Your task to perform on an android device: create a new album in the google photos Image 0: 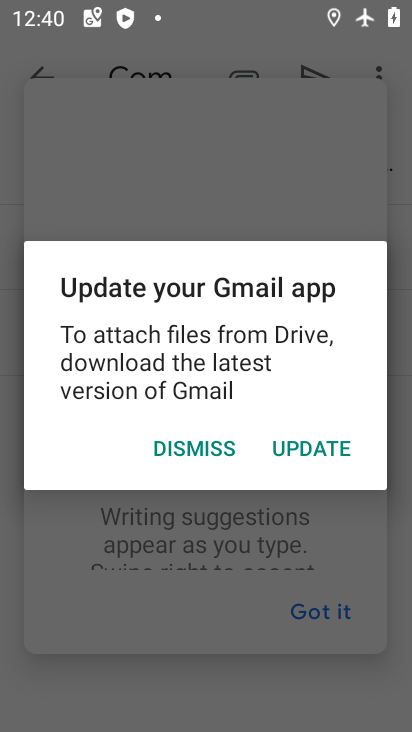
Step 0: press home button
Your task to perform on an android device: create a new album in the google photos Image 1: 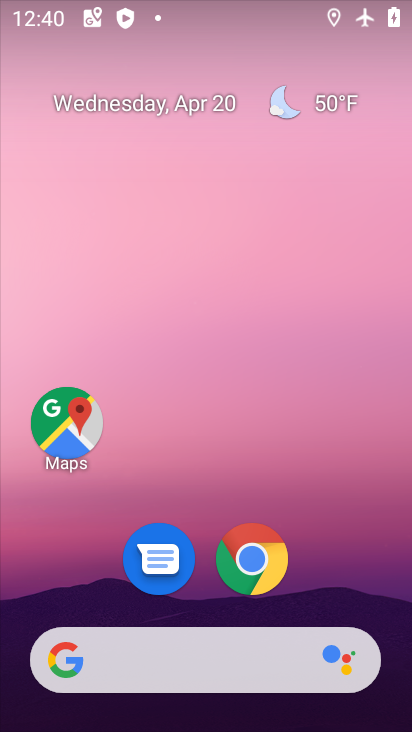
Step 1: drag from (322, 501) to (324, 127)
Your task to perform on an android device: create a new album in the google photos Image 2: 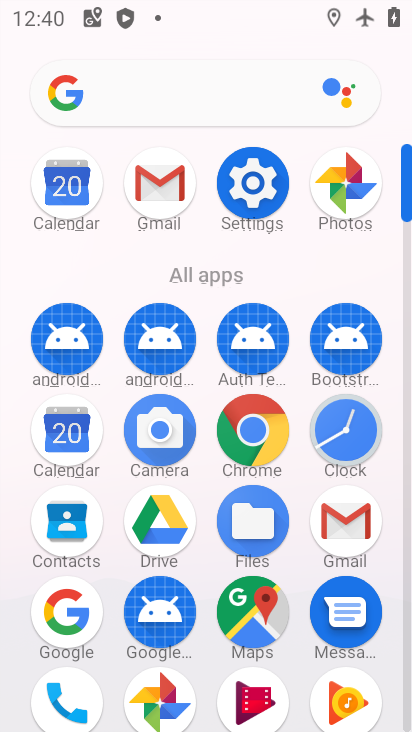
Step 2: click (346, 180)
Your task to perform on an android device: create a new album in the google photos Image 3: 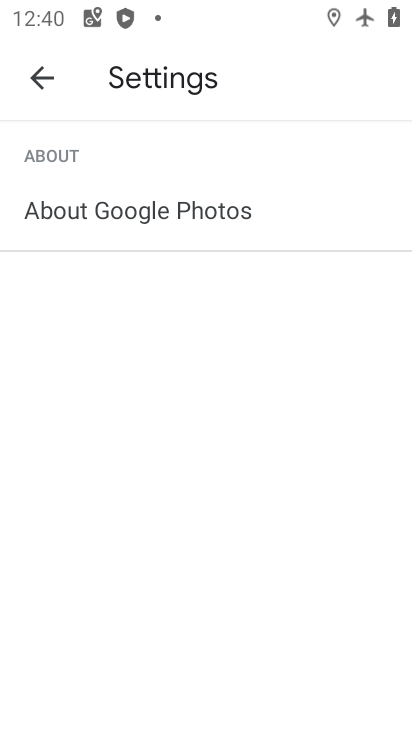
Step 3: click (45, 83)
Your task to perform on an android device: create a new album in the google photos Image 4: 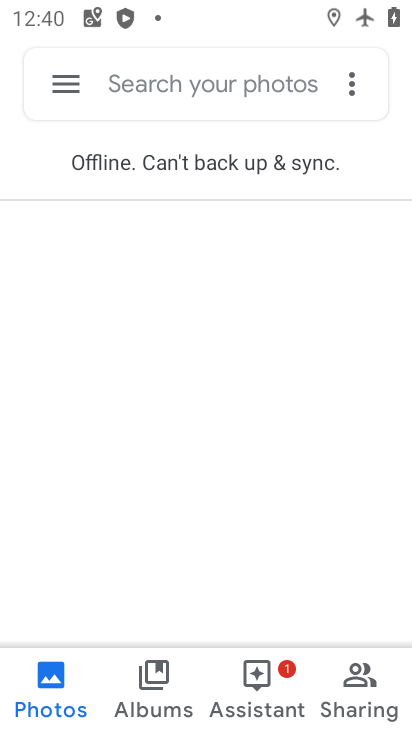
Step 4: click (160, 672)
Your task to perform on an android device: create a new album in the google photos Image 5: 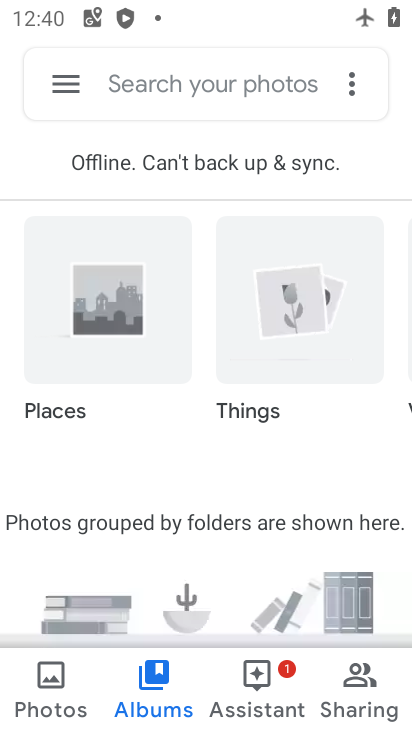
Step 5: drag from (222, 614) to (233, 272)
Your task to perform on an android device: create a new album in the google photos Image 6: 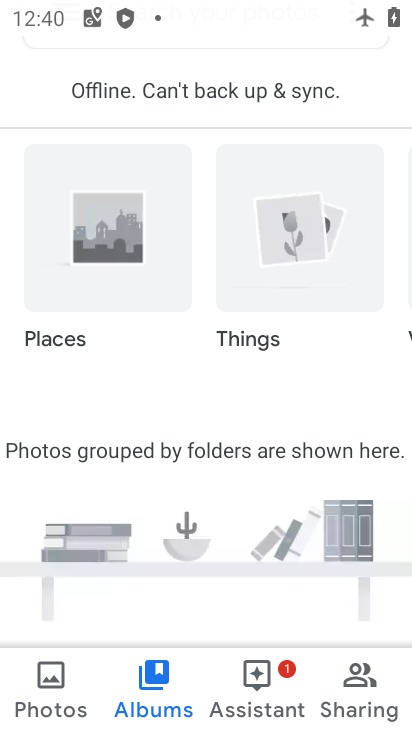
Step 6: drag from (230, 259) to (183, 589)
Your task to perform on an android device: create a new album in the google photos Image 7: 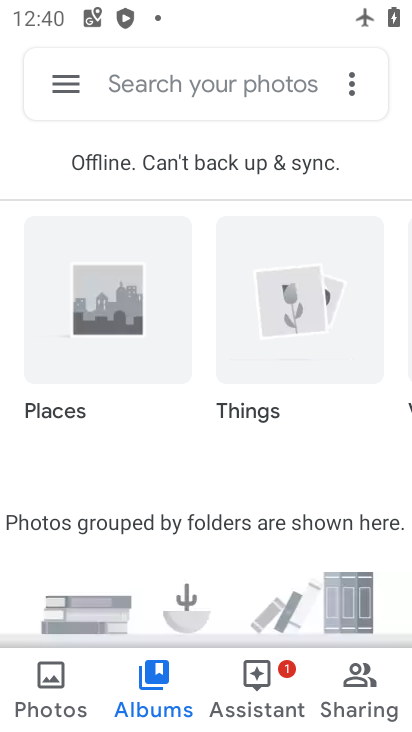
Step 7: drag from (360, 327) to (78, 330)
Your task to perform on an android device: create a new album in the google photos Image 8: 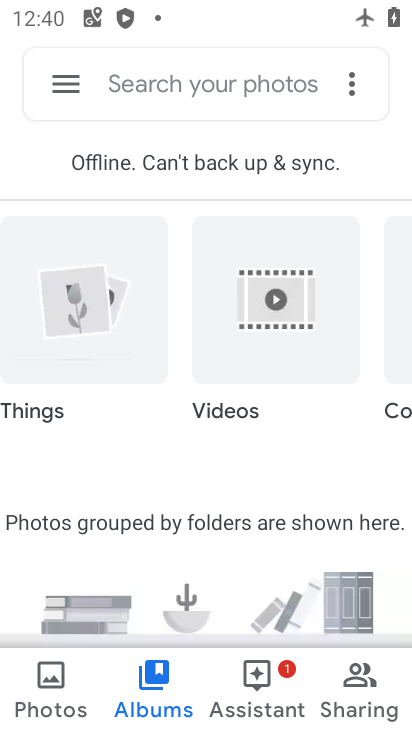
Step 8: drag from (312, 329) to (68, 346)
Your task to perform on an android device: create a new album in the google photos Image 9: 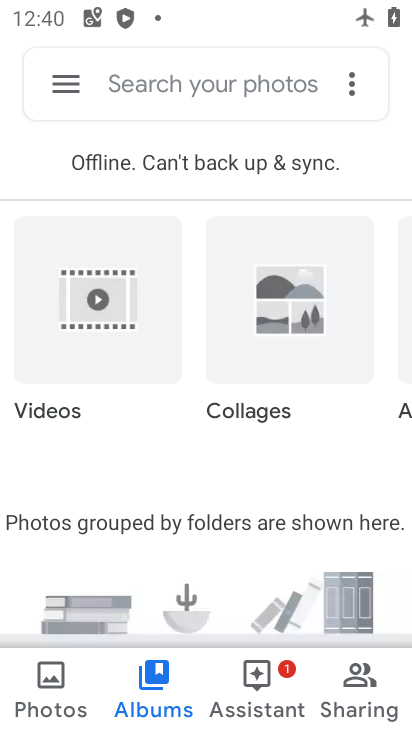
Step 9: drag from (378, 342) to (118, 359)
Your task to perform on an android device: create a new album in the google photos Image 10: 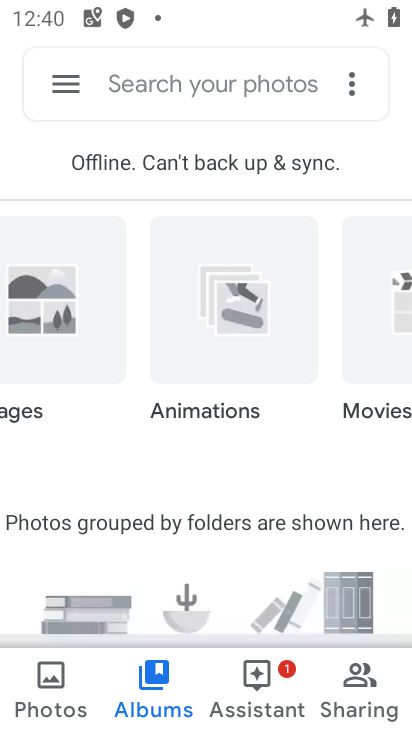
Step 10: drag from (382, 386) to (72, 357)
Your task to perform on an android device: create a new album in the google photos Image 11: 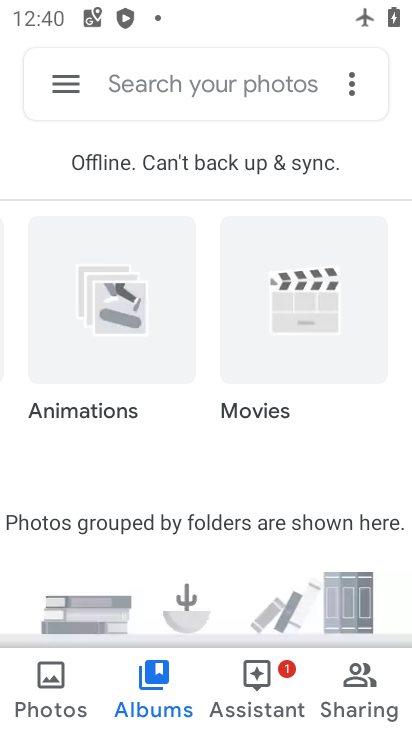
Step 11: click (263, 82)
Your task to perform on an android device: create a new album in the google photos Image 12: 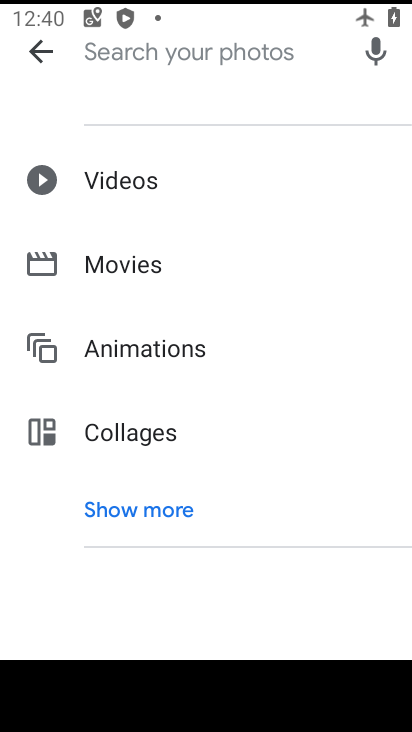
Step 12: click (117, 500)
Your task to perform on an android device: create a new album in the google photos Image 13: 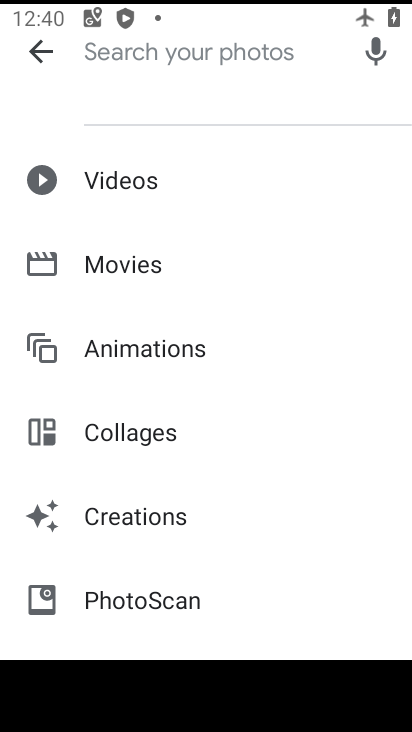
Step 13: drag from (170, 566) to (189, 174)
Your task to perform on an android device: create a new album in the google photos Image 14: 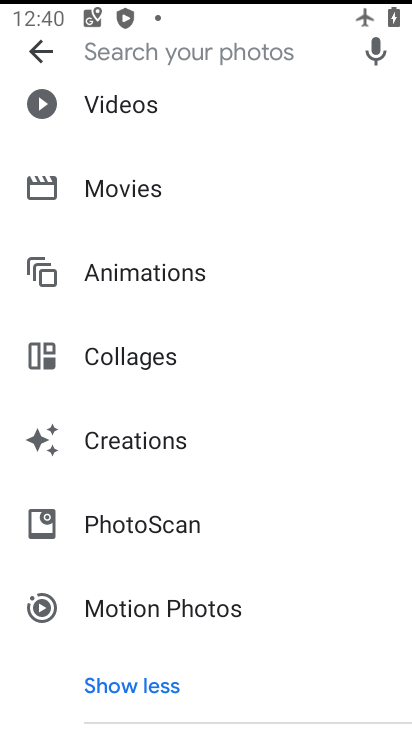
Step 14: click (122, 684)
Your task to perform on an android device: create a new album in the google photos Image 15: 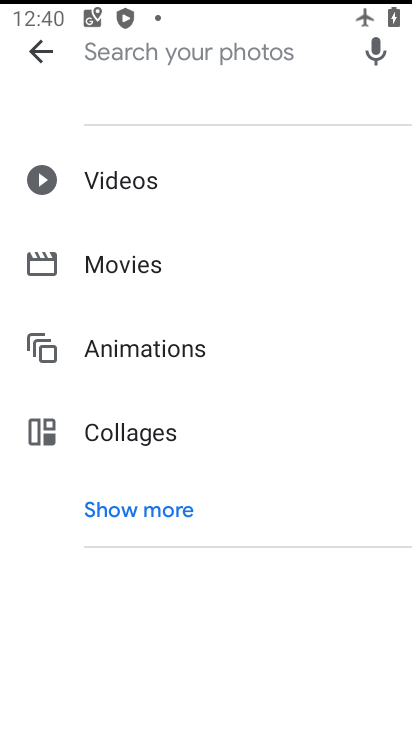
Step 15: click (47, 58)
Your task to perform on an android device: create a new album in the google photos Image 16: 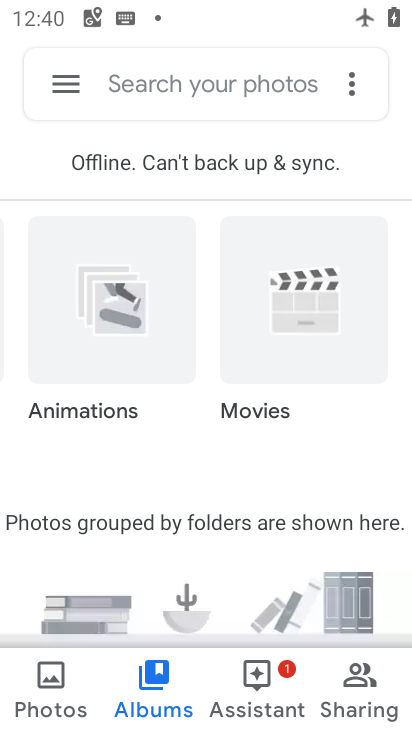
Step 16: click (62, 79)
Your task to perform on an android device: create a new album in the google photos Image 17: 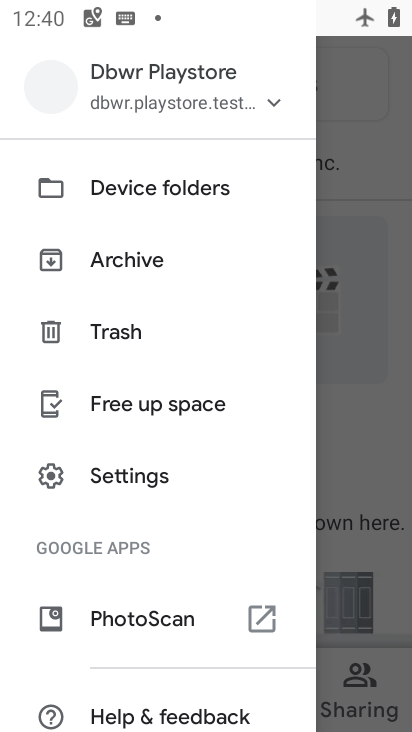
Step 17: click (362, 692)
Your task to perform on an android device: create a new album in the google photos Image 18: 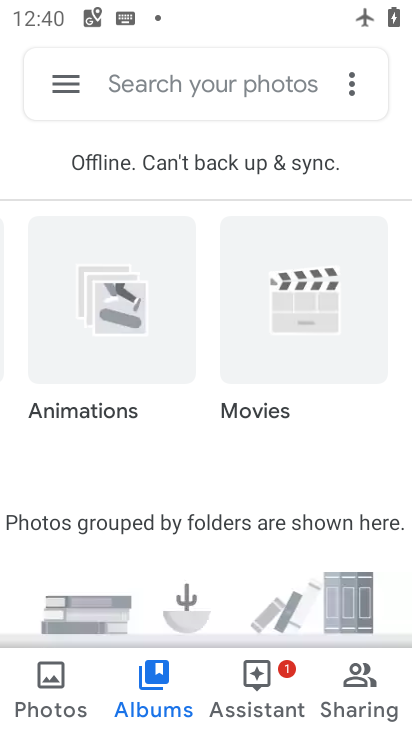
Step 18: click (156, 693)
Your task to perform on an android device: create a new album in the google photos Image 19: 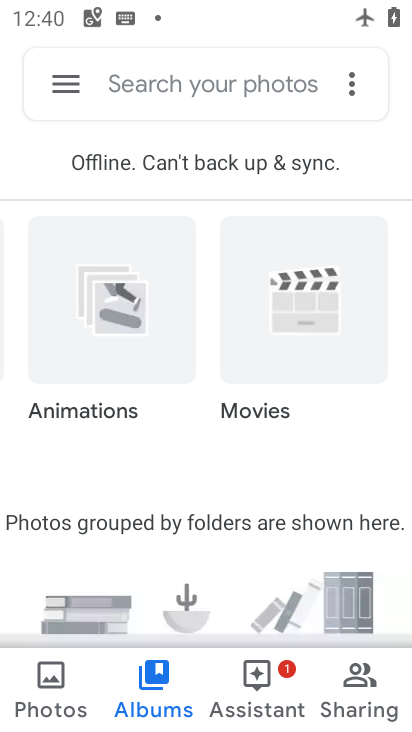
Step 19: drag from (197, 604) to (201, 164)
Your task to perform on an android device: create a new album in the google photos Image 20: 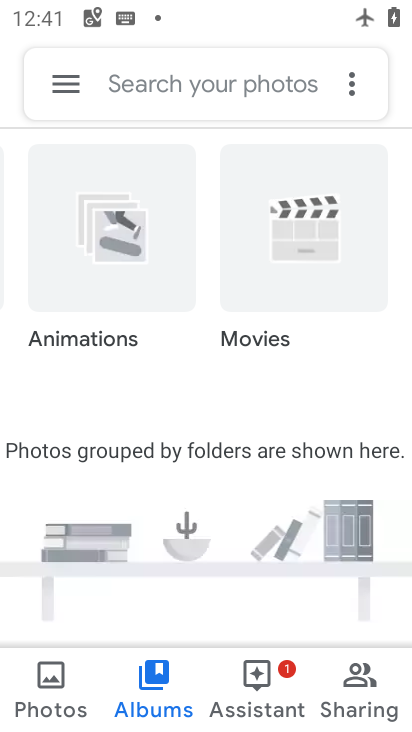
Step 20: drag from (294, 273) to (77, 246)
Your task to perform on an android device: create a new album in the google photos Image 21: 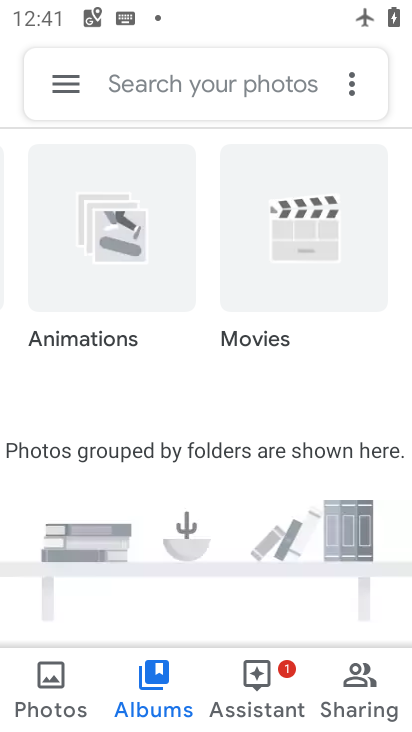
Step 21: click (144, 594)
Your task to perform on an android device: create a new album in the google photos Image 22: 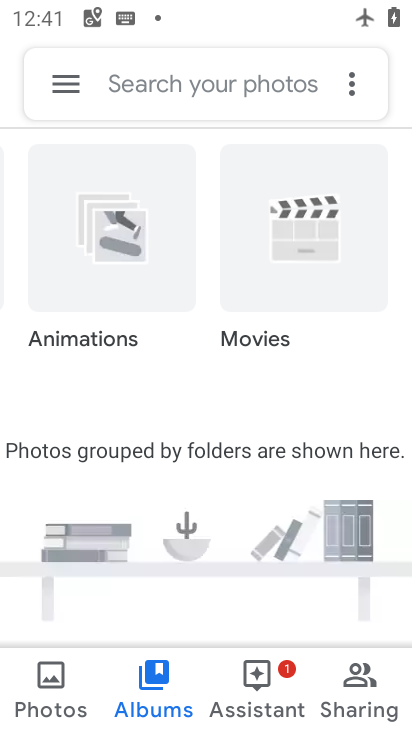
Step 22: click (216, 530)
Your task to perform on an android device: create a new album in the google photos Image 23: 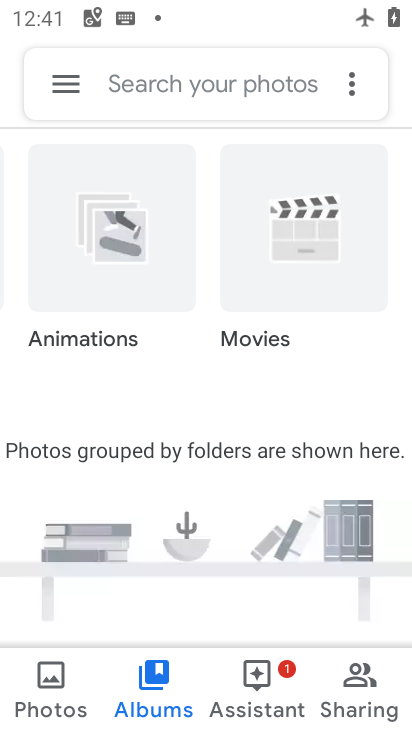
Step 23: click (216, 530)
Your task to perform on an android device: create a new album in the google photos Image 24: 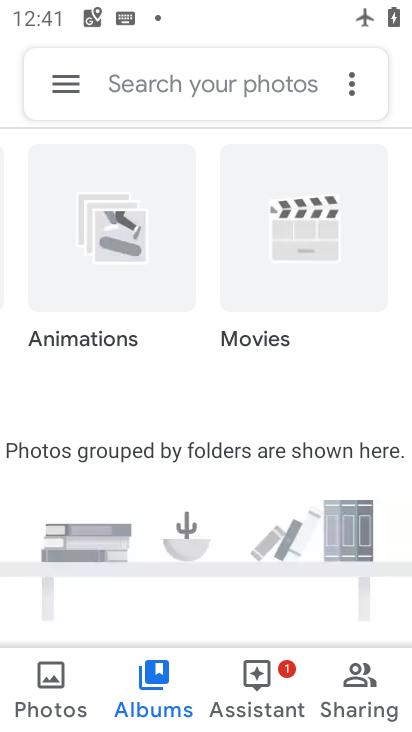
Step 24: task complete